Your task to perform on an android device: change keyboard looks Image 0: 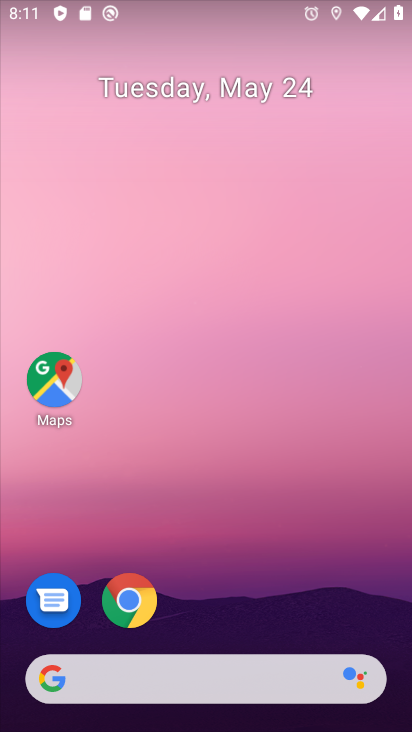
Step 0: drag from (217, 724) to (215, 143)
Your task to perform on an android device: change keyboard looks Image 1: 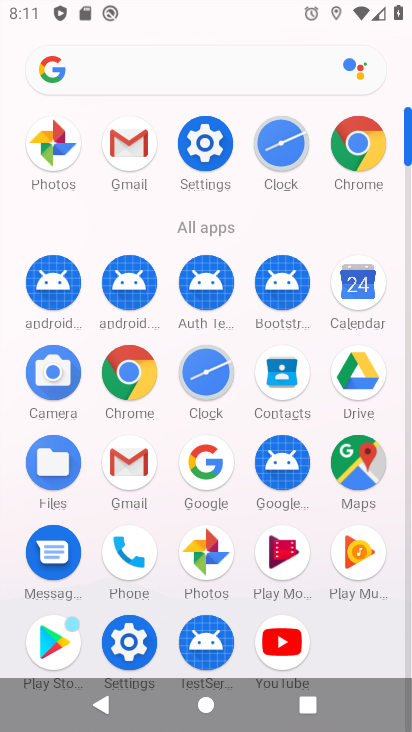
Step 1: click (211, 139)
Your task to perform on an android device: change keyboard looks Image 2: 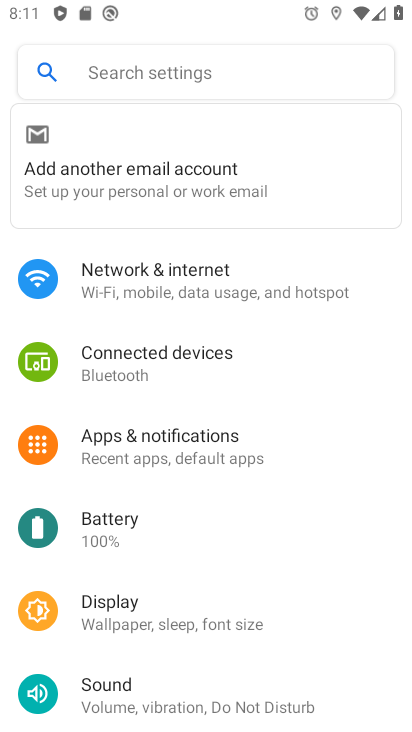
Step 2: drag from (143, 663) to (164, 161)
Your task to perform on an android device: change keyboard looks Image 3: 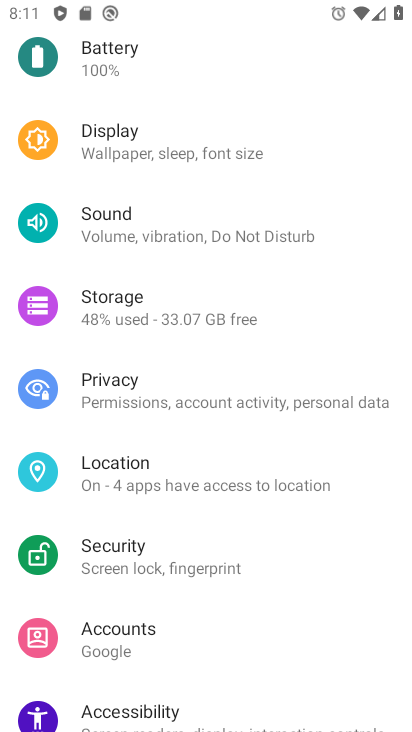
Step 3: drag from (174, 666) to (185, 190)
Your task to perform on an android device: change keyboard looks Image 4: 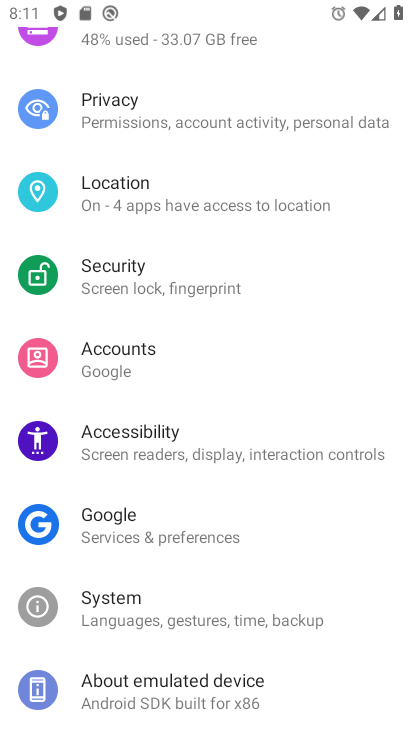
Step 4: click (118, 607)
Your task to perform on an android device: change keyboard looks Image 5: 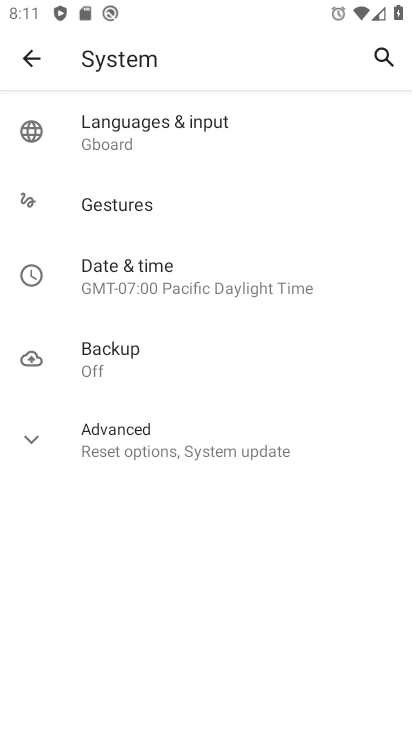
Step 5: click (123, 126)
Your task to perform on an android device: change keyboard looks Image 6: 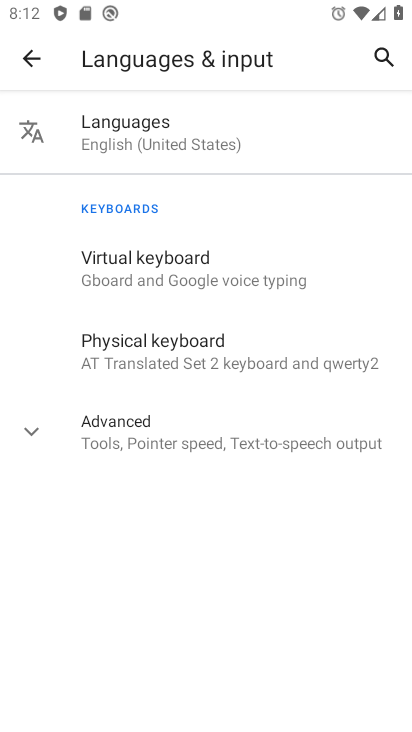
Step 6: click (161, 264)
Your task to perform on an android device: change keyboard looks Image 7: 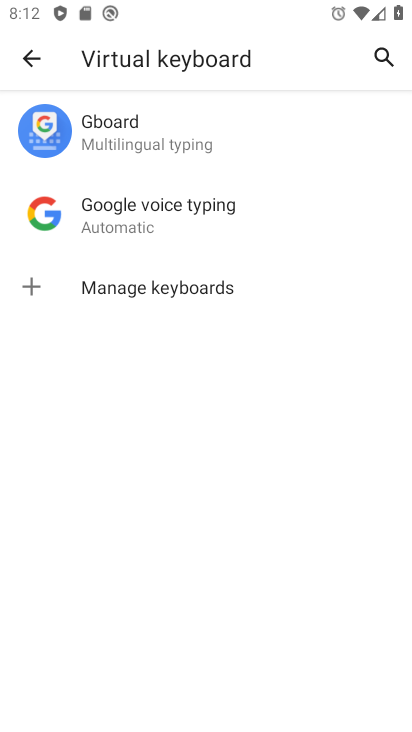
Step 7: click (146, 134)
Your task to perform on an android device: change keyboard looks Image 8: 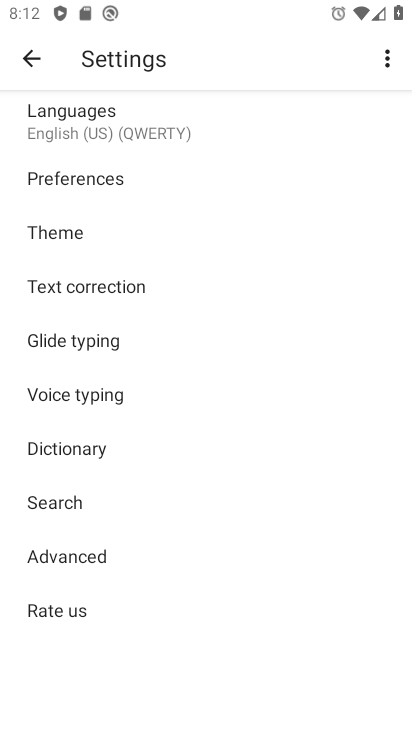
Step 8: click (58, 233)
Your task to perform on an android device: change keyboard looks Image 9: 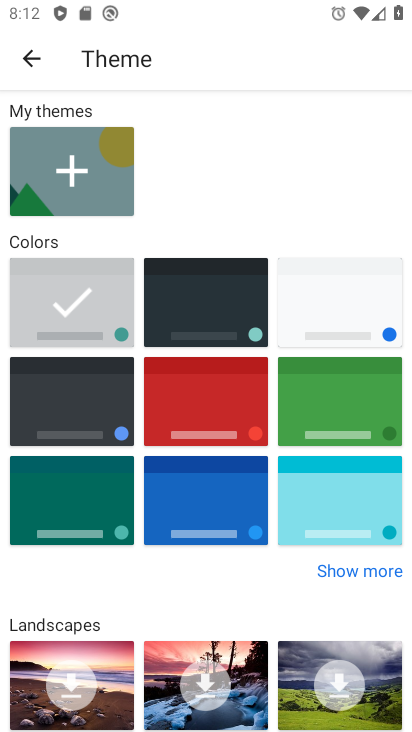
Step 9: click (193, 296)
Your task to perform on an android device: change keyboard looks Image 10: 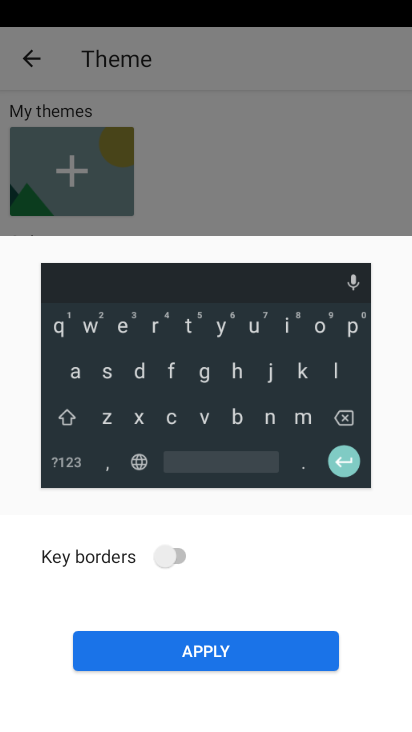
Step 10: click (182, 557)
Your task to perform on an android device: change keyboard looks Image 11: 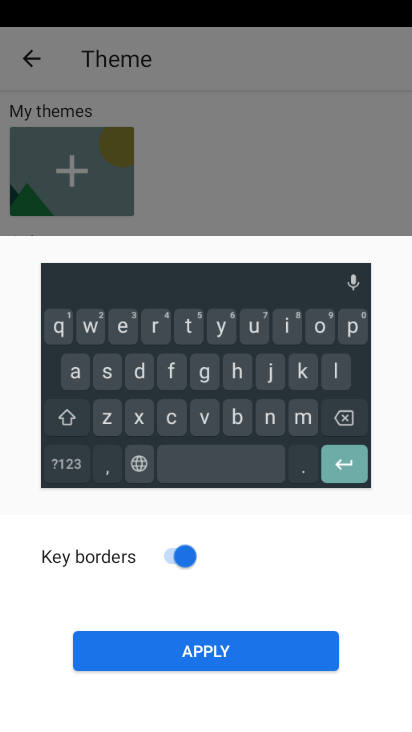
Step 11: click (212, 652)
Your task to perform on an android device: change keyboard looks Image 12: 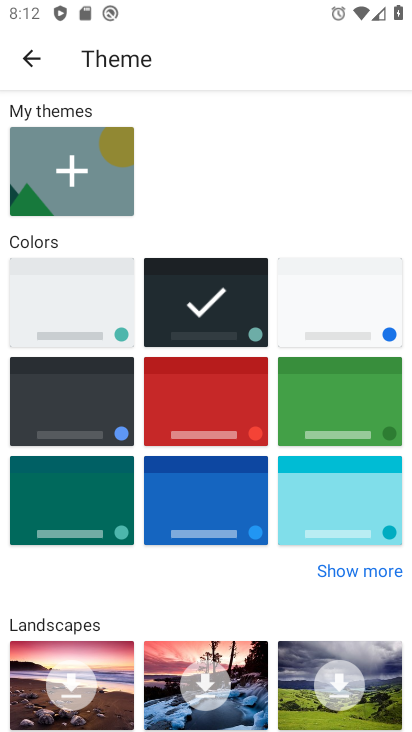
Step 12: task complete